Your task to perform on an android device: change the clock display to digital Image 0: 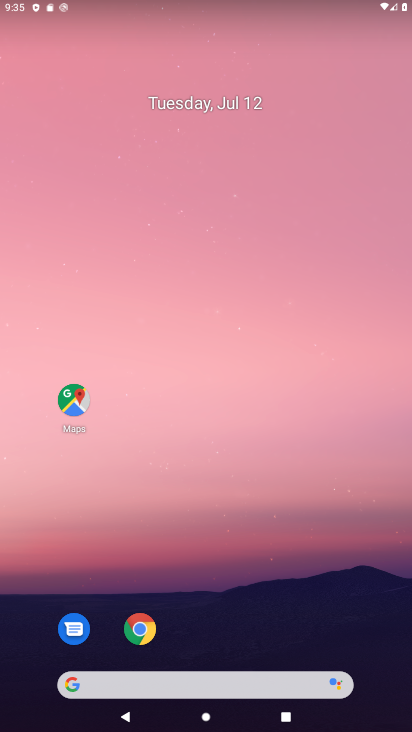
Step 0: drag from (246, 647) to (268, 227)
Your task to perform on an android device: change the clock display to digital Image 1: 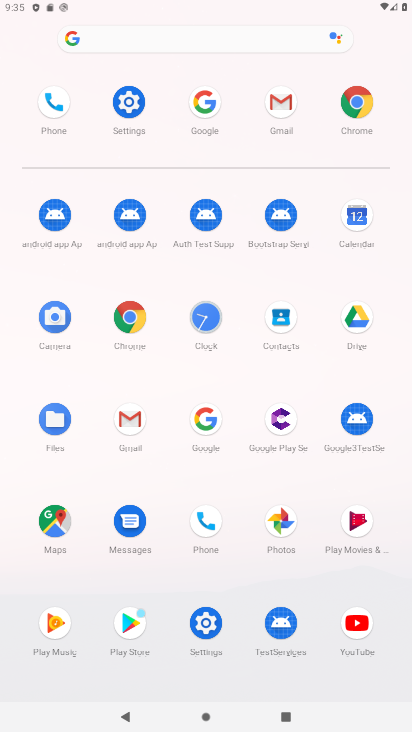
Step 1: click (188, 313)
Your task to perform on an android device: change the clock display to digital Image 2: 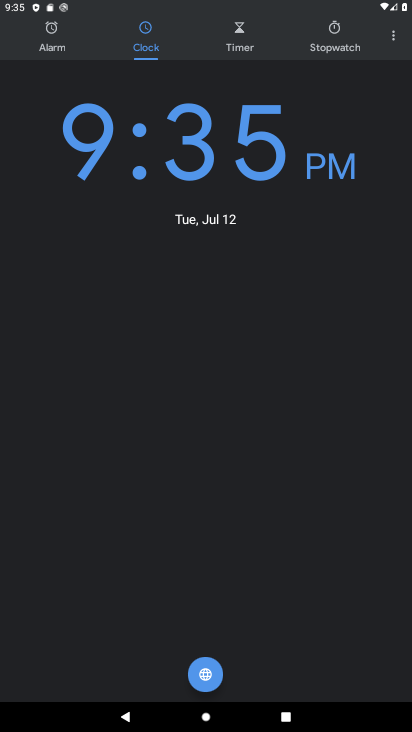
Step 2: click (390, 29)
Your task to perform on an android device: change the clock display to digital Image 3: 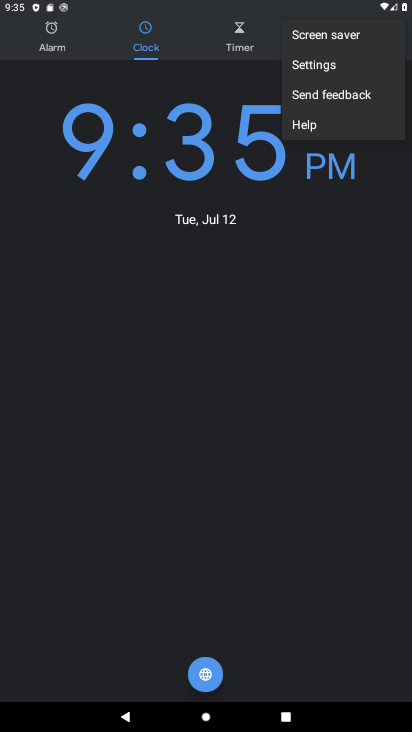
Step 3: click (329, 64)
Your task to perform on an android device: change the clock display to digital Image 4: 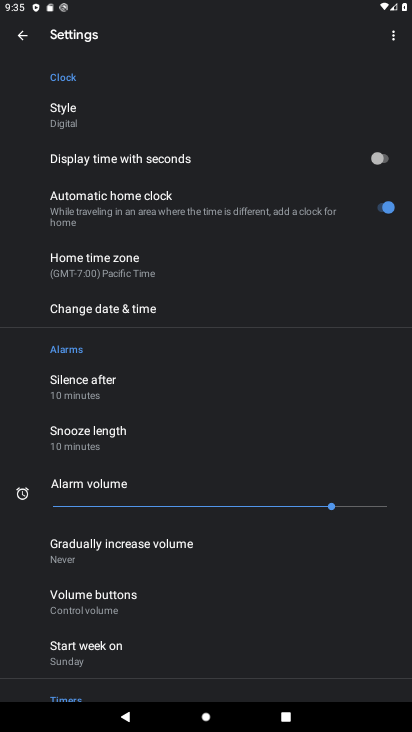
Step 4: task complete